Your task to perform on an android device: Open the web browser Image 0: 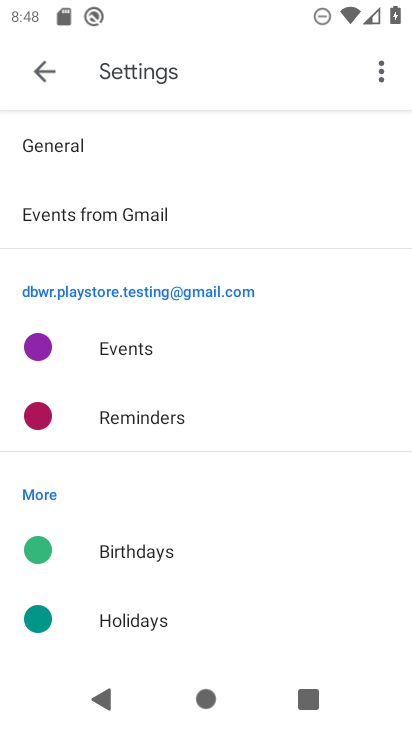
Step 0: press home button
Your task to perform on an android device: Open the web browser Image 1: 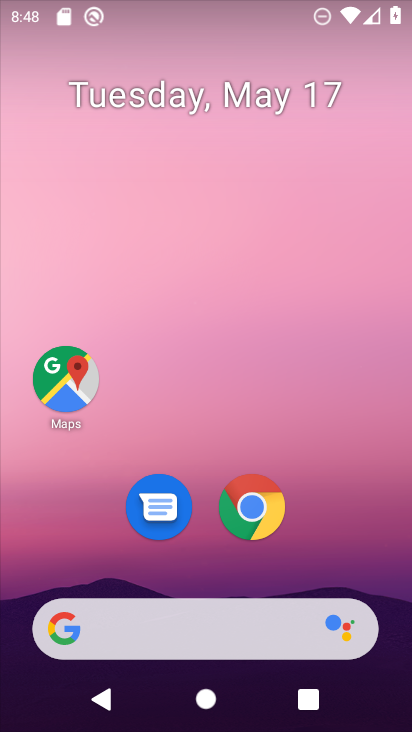
Step 1: click (250, 512)
Your task to perform on an android device: Open the web browser Image 2: 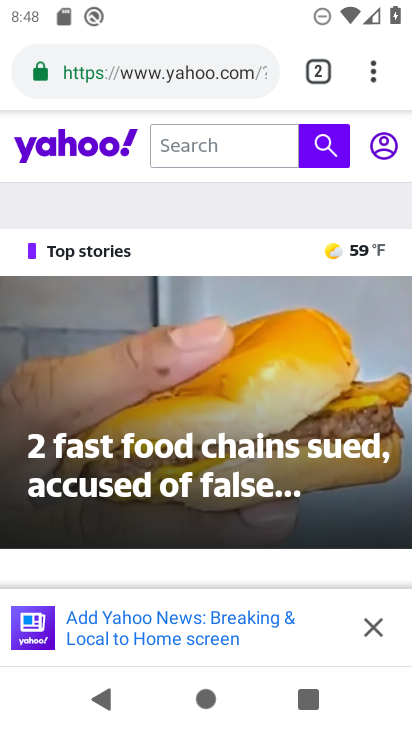
Step 2: task complete